Your task to perform on an android device: Open ESPN.com Image 0: 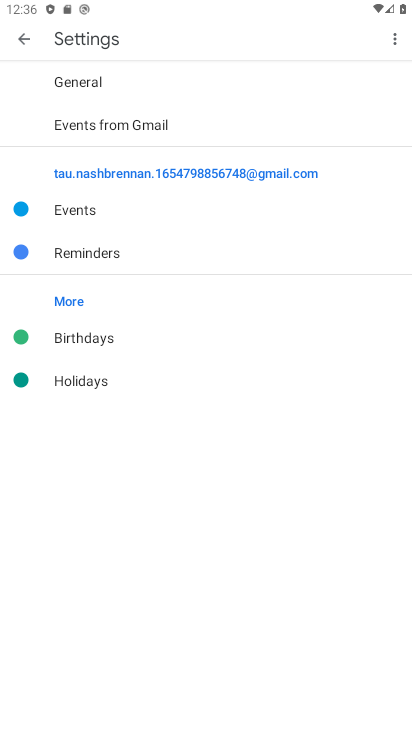
Step 0: press home button
Your task to perform on an android device: Open ESPN.com Image 1: 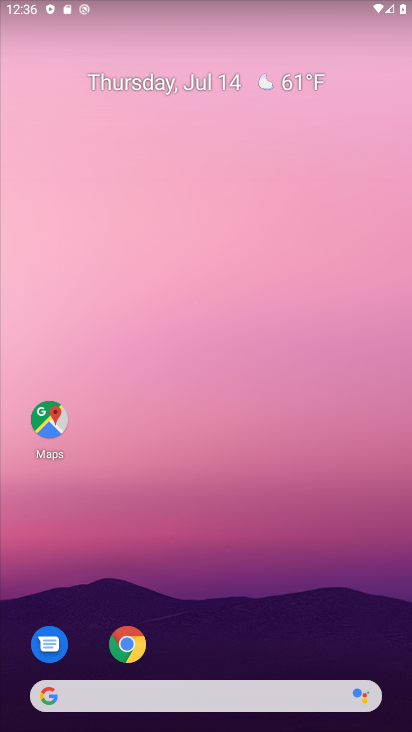
Step 1: drag from (311, 620) to (213, 158)
Your task to perform on an android device: Open ESPN.com Image 2: 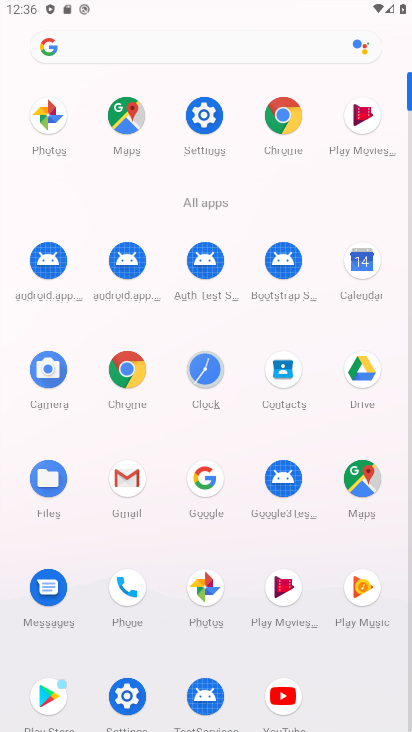
Step 2: click (279, 110)
Your task to perform on an android device: Open ESPN.com Image 3: 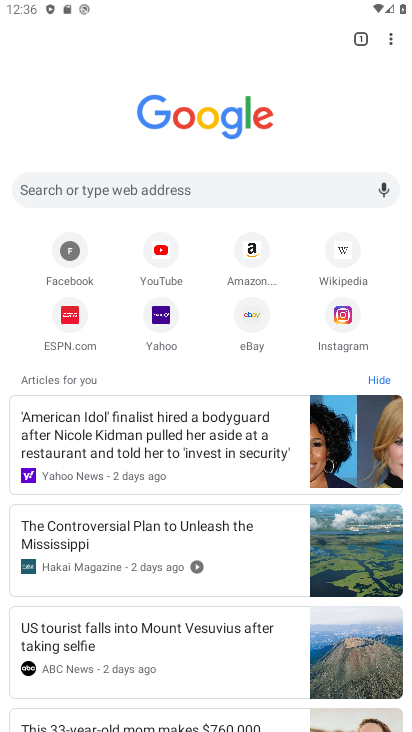
Step 3: click (71, 313)
Your task to perform on an android device: Open ESPN.com Image 4: 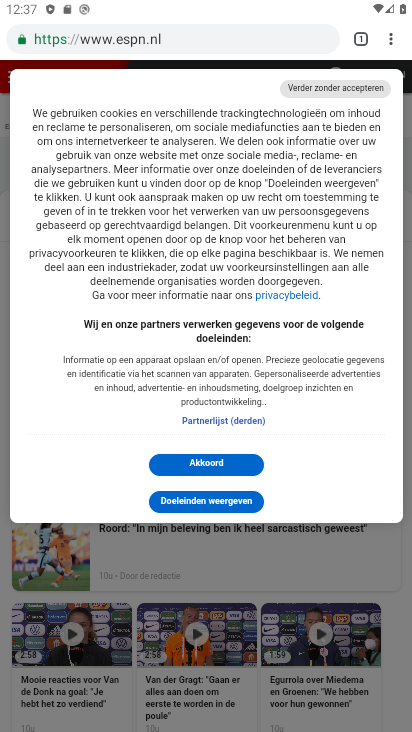
Step 4: task complete